Your task to perform on an android device: set default search engine in the chrome app Image 0: 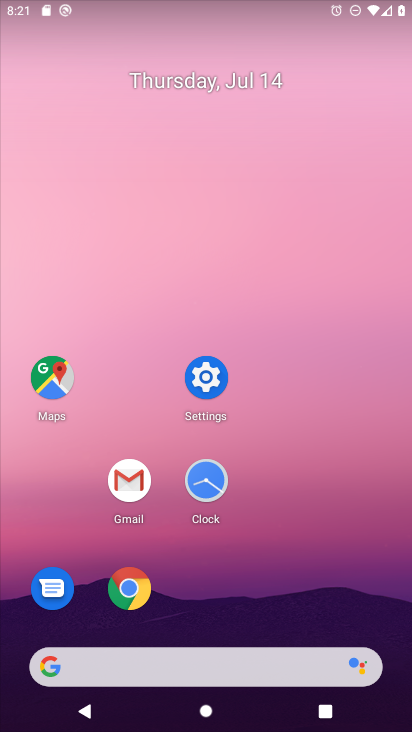
Step 0: click (125, 583)
Your task to perform on an android device: set default search engine in the chrome app Image 1: 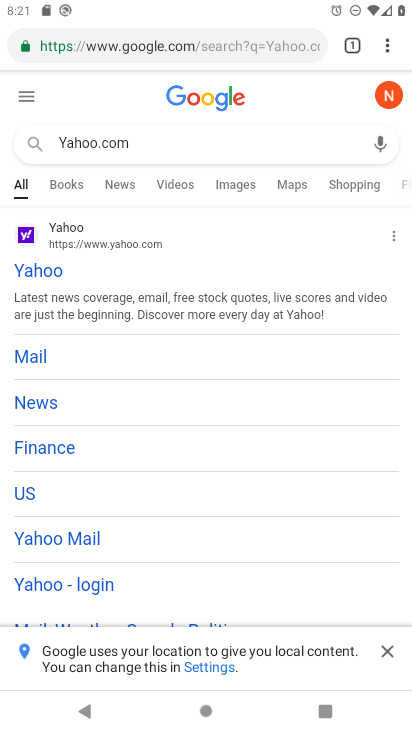
Step 1: click (386, 38)
Your task to perform on an android device: set default search engine in the chrome app Image 2: 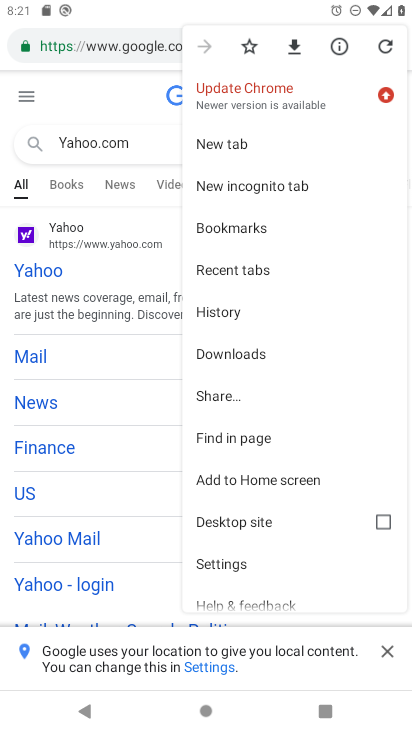
Step 2: click (225, 561)
Your task to perform on an android device: set default search engine in the chrome app Image 3: 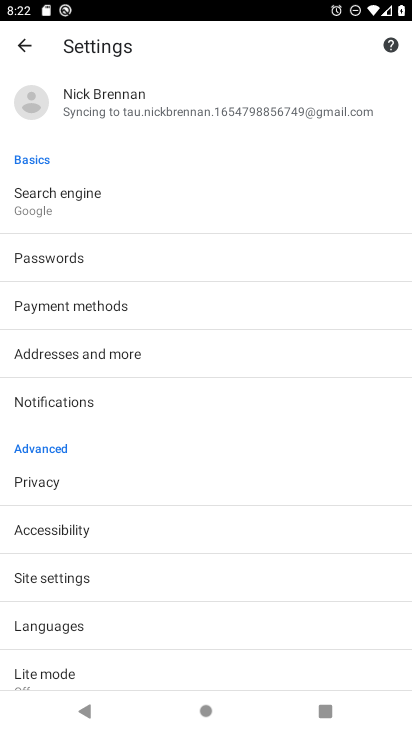
Step 3: drag from (143, 649) to (177, 278)
Your task to perform on an android device: set default search engine in the chrome app Image 4: 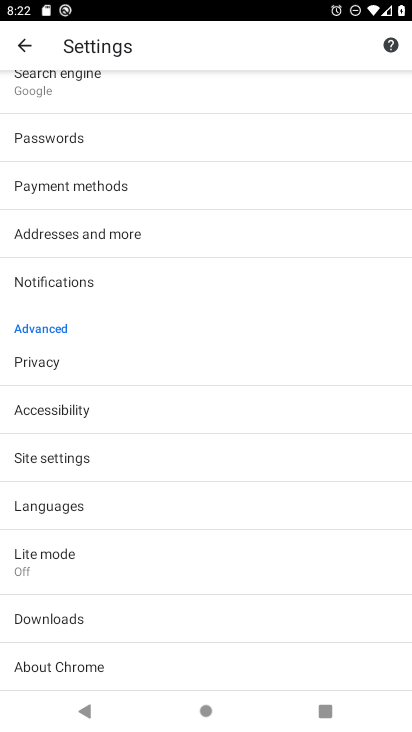
Step 4: drag from (191, 161) to (192, 574)
Your task to perform on an android device: set default search engine in the chrome app Image 5: 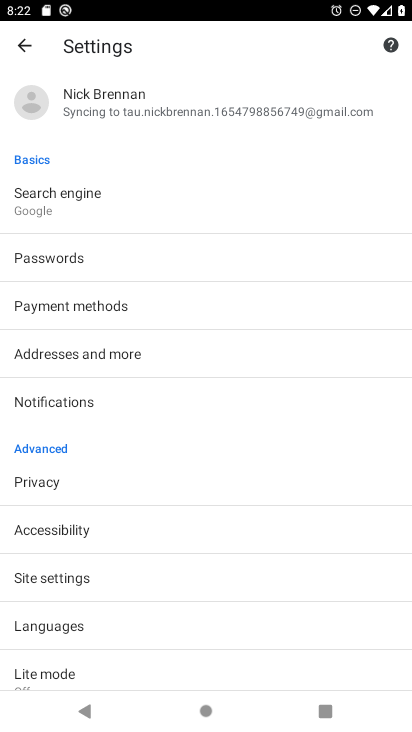
Step 5: click (63, 191)
Your task to perform on an android device: set default search engine in the chrome app Image 6: 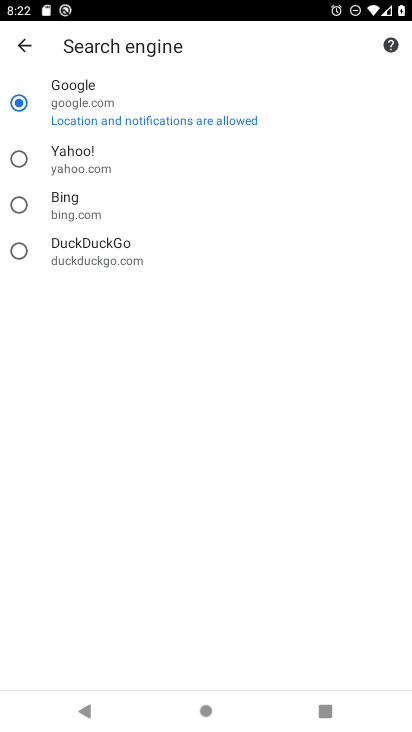
Step 6: task complete